Your task to perform on an android device: Search for Mexican restaurants on Maps Image 0: 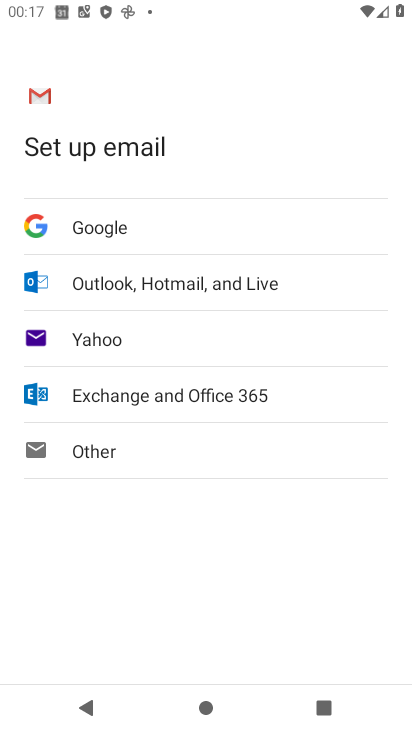
Step 0: press home button
Your task to perform on an android device: Search for Mexican restaurants on Maps Image 1: 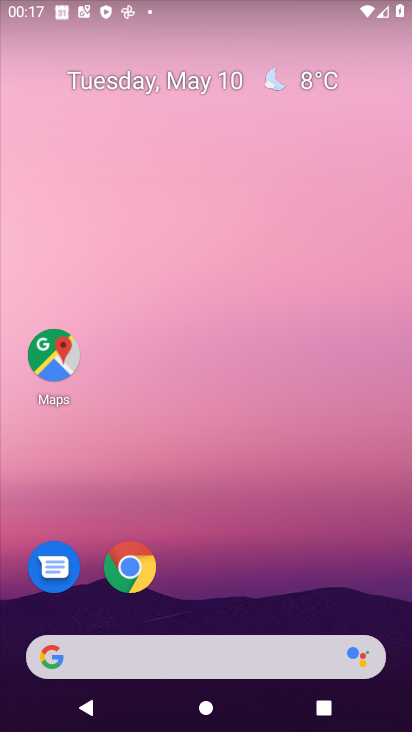
Step 1: click (54, 359)
Your task to perform on an android device: Search for Mexican restaurants on Maps Image 2: 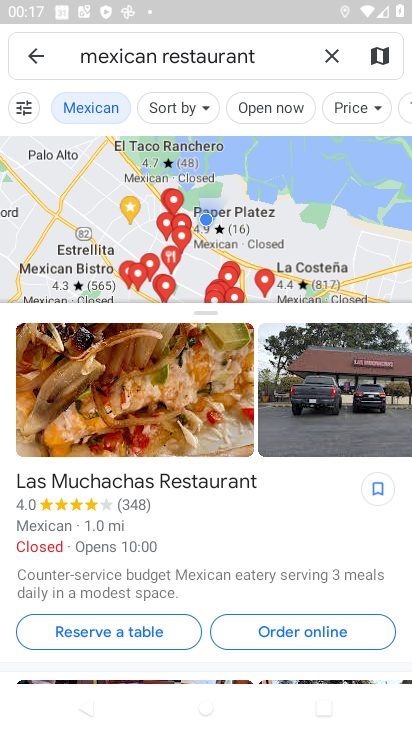
Step 2: click (332, 54)
Your task to perform on an android device: Search for Mexican restaurants on Maps Image 3: 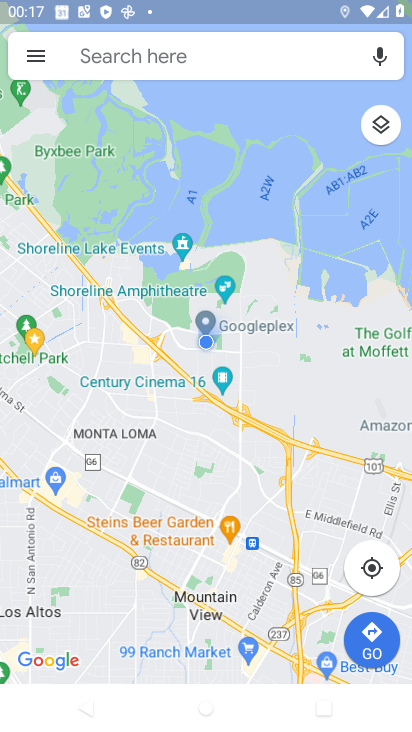
Step 3: click (199, 57)
Your task to perform on an android device: Search for Mexican restaurants on Maps Image 4: 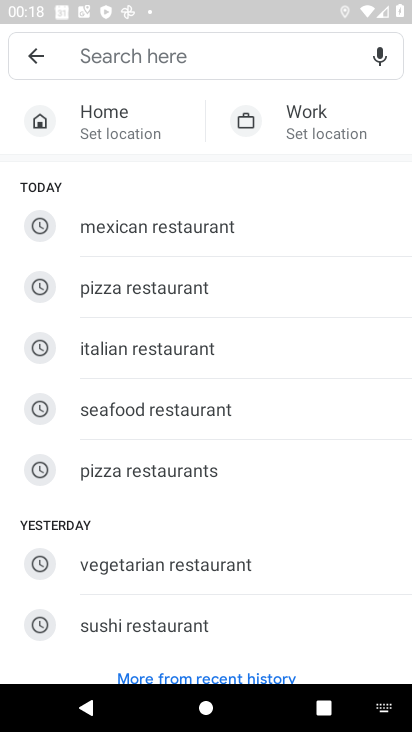
Step 4: type "Mexican restaurants"
Your task to perform on an android device: Search for Mexican restaurants on Maps Image 5: 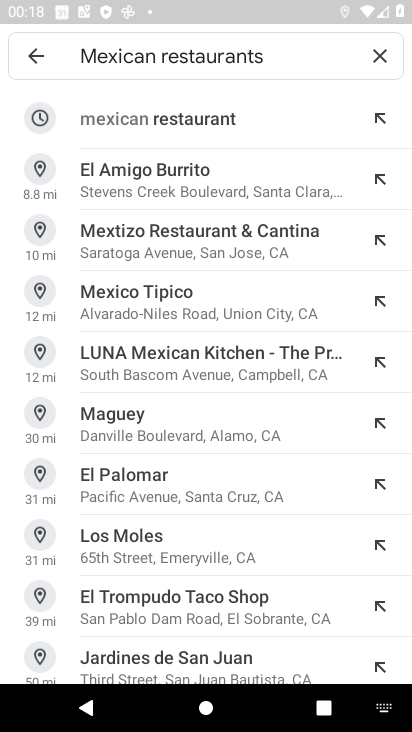
Step 5: click (204, 121)
Your task to perform on an android device: Search for Mexican restaurants on Maps Image 6: 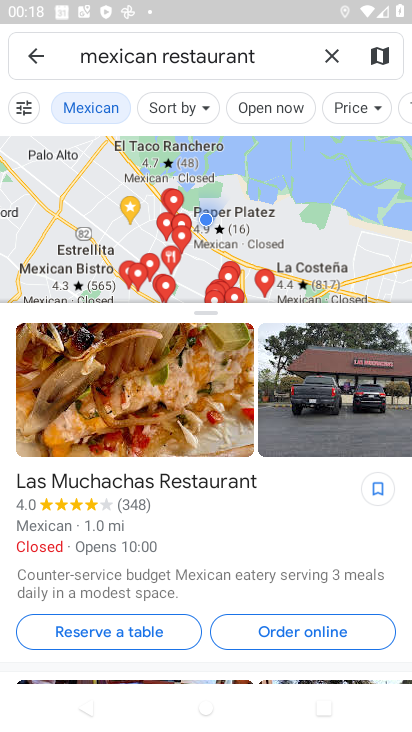
Step 6: task complete